Your task to perform on an android device: turn vacation reply on in the gmail app Image 0: 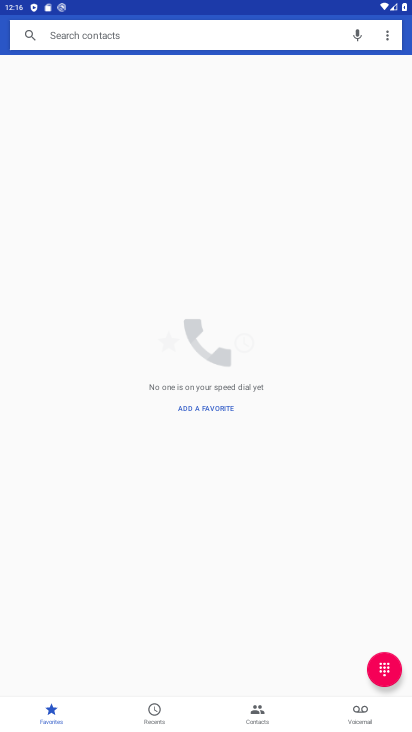
Step 0: press home button
Your task to perform on an android device: turn vacation reply on in the gmail app Image 1: 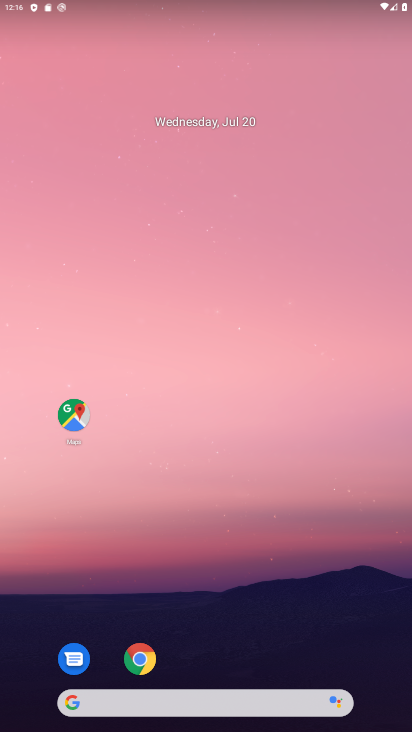
Step 1: drag from (350, 636) to (266, 49)
Your task to perform on an android device: turn vacation reply on in the gmail app Image 2: 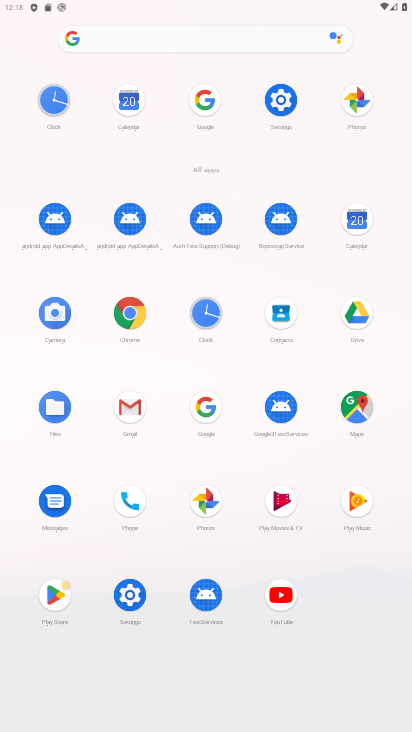
Step 2: click (133, 419)
Your task to perform on an android device: turn vacation reply on in the gmail app Image 3: 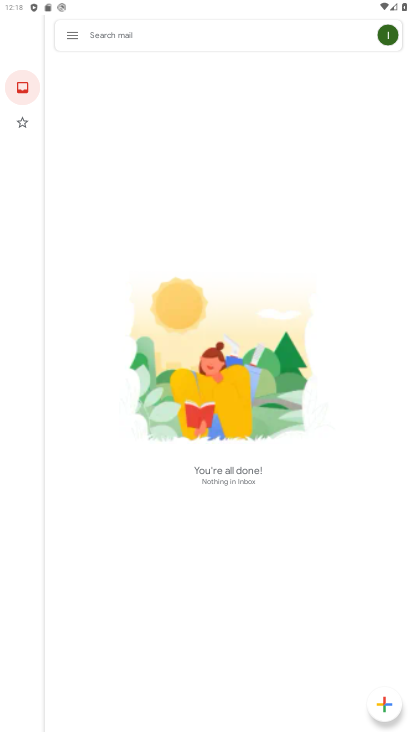
Step 3: click (71, 29)
Your task to perform on an android device: turn vacation reply on in the gmail app Image 4: 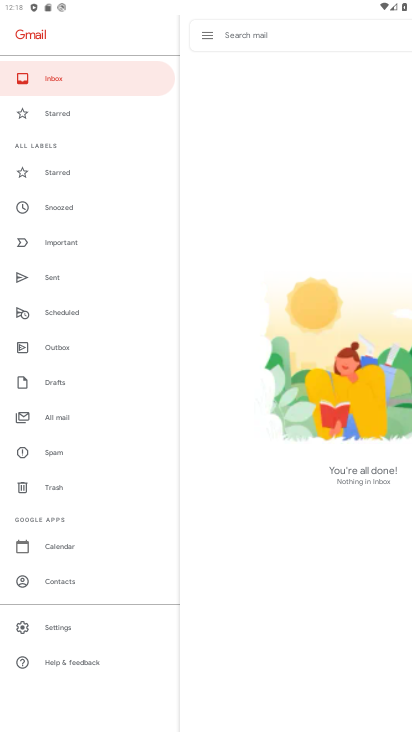
Step 4: click (79, 636)
Your task to perform on an android device: turn vacation reply on in the gmail app Image 5: 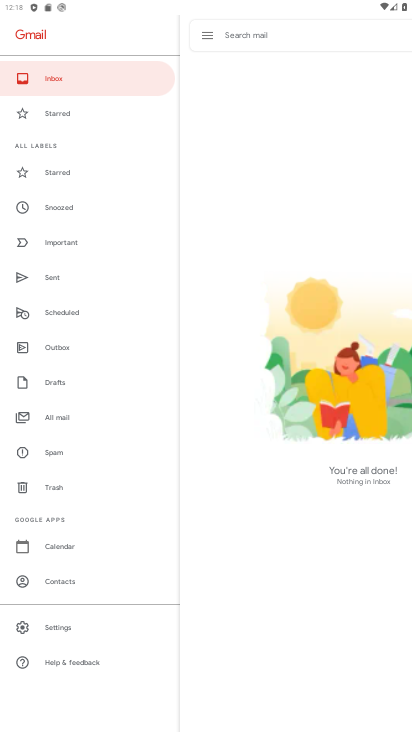
Step 5: click (58, 629)
Your task to perform on an android device: turn vacation reply on in the gmail app Image 6: 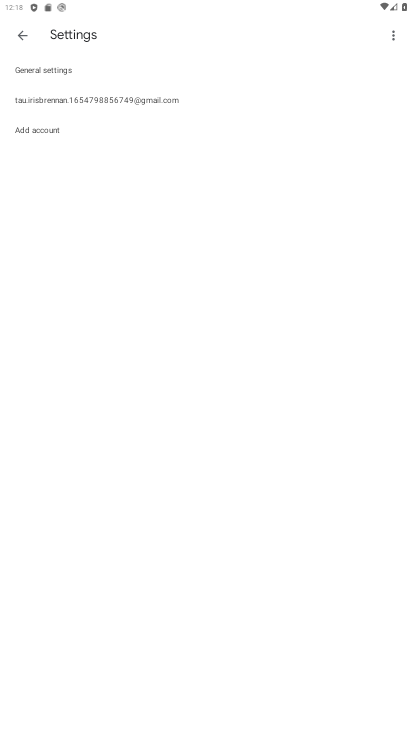
Step 6: click (142, 99)
Your task to perform on an android device: turn vacation reply on in the gmail app Image 7: 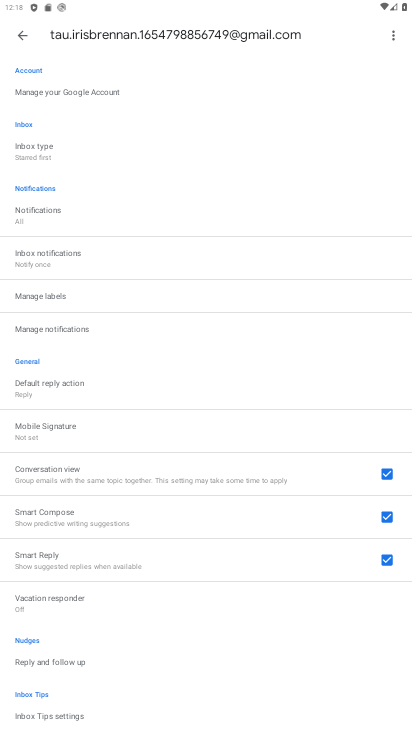
Step 7: click (69, 593)
Your task to perform on an android device: turn vacation reply on in the gmail app Image 8: 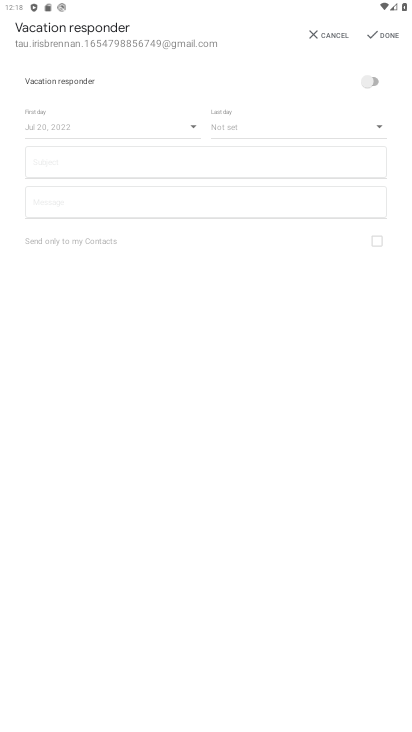
Step 8: click (374, 79)
Your task to perform on an android device: turn vacation reply on in the gmail app Image 9: 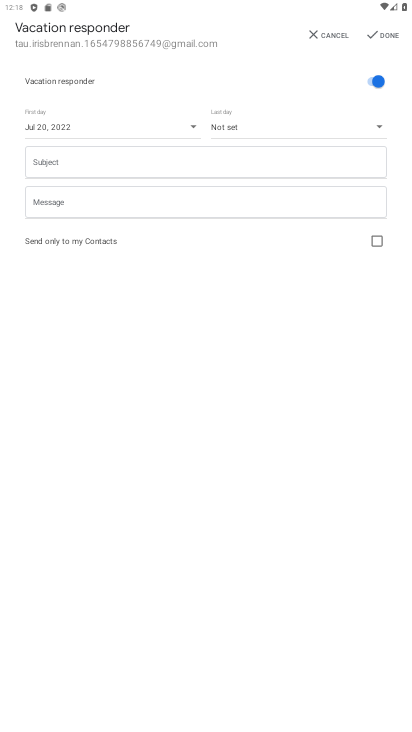
Step 9: task complete